Your task to perform on an android device: refresh tabs in the chrome app Image 0: 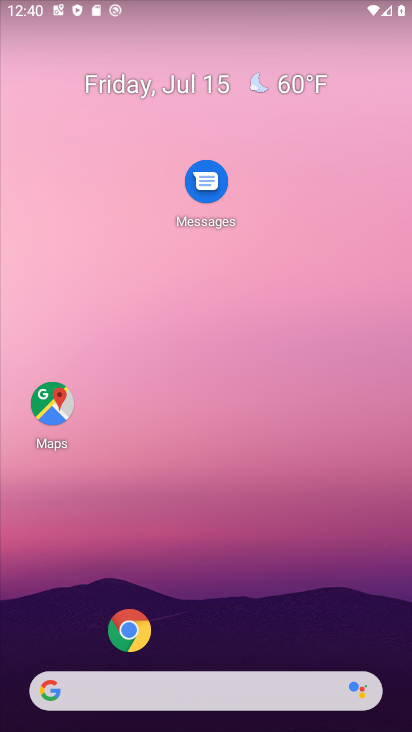
Step 0: click (137, 628)
Your task to perform on an android device: refresh tabs in the chrome app Image 1: 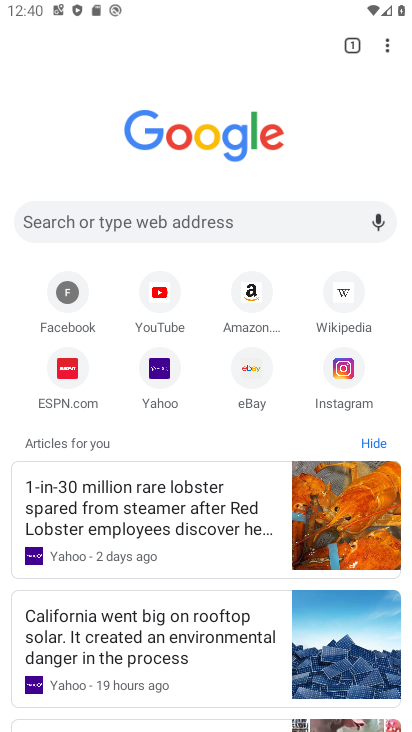
Step 1: click (383, 47)
Your task to perform on an android device: refresh tabs in the chrome app Image 2: 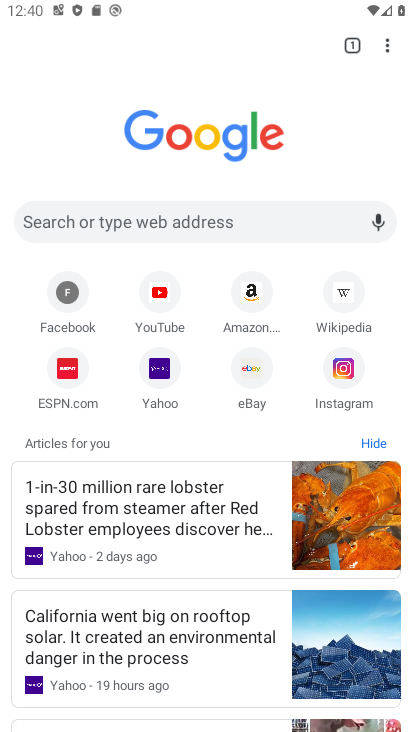
Step 2: click (388, 40)
Your task to perform on an android device: refresh tabs in the chrome app Image 3: 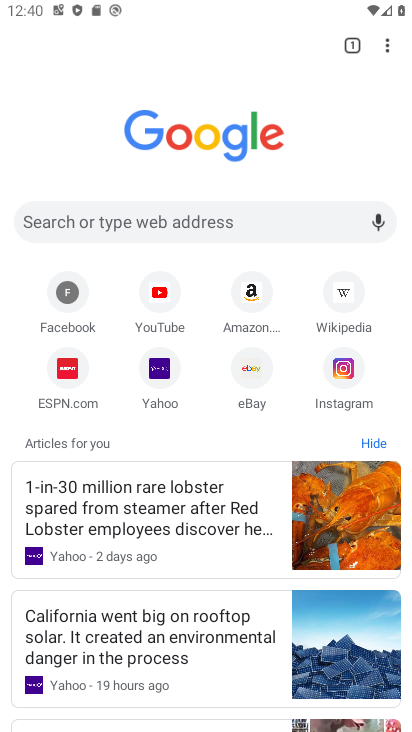
Step 3: click (388, 44)
Your task to perform on an android device: refresh tabs in the chrome app Image 4: 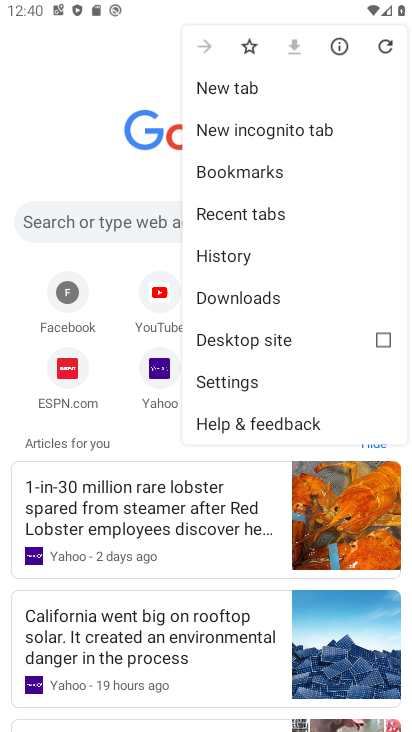
Step 4: click (382, 51)
Your task to perform on an android device: refresh tabs in the chrome app Image 5: 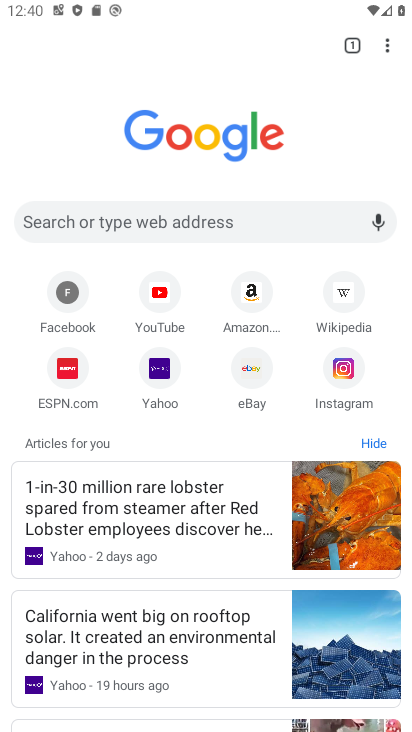
Step 5: task complete